Your task to perform on an android device: change the clock style Image 0: 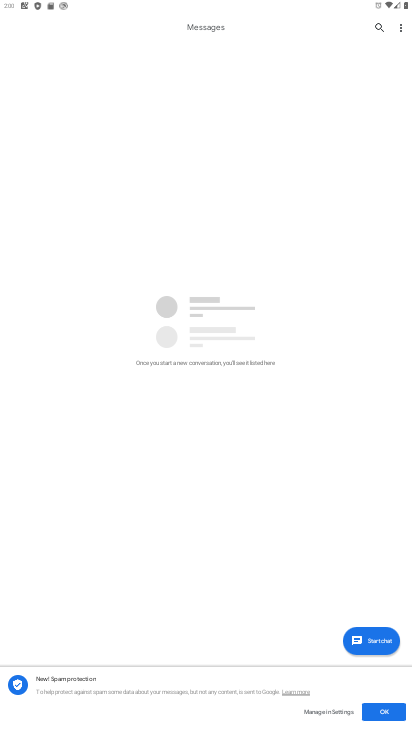
Step 0: press home button
Your task to perform on an android device: change the clock style Image 1: 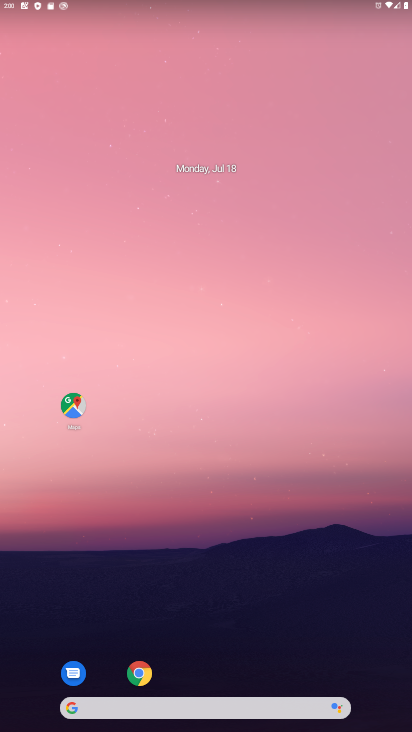
Step 1: drag from (203, 675) to (223, 197)
Your task to perform on an android device: change the clock style Image 2: 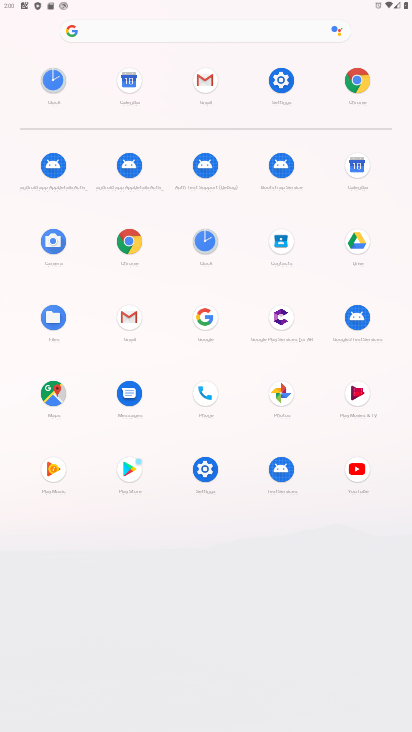
Step 2: click (205, 249)
Your task to perform on an android device: change the clock style Image 3: 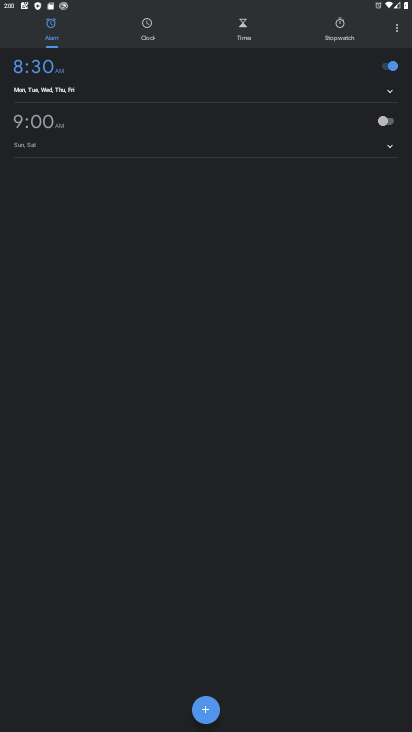
Step 3: click (398, 40)
Your task to perform on an android device: change the clock style Image 4: 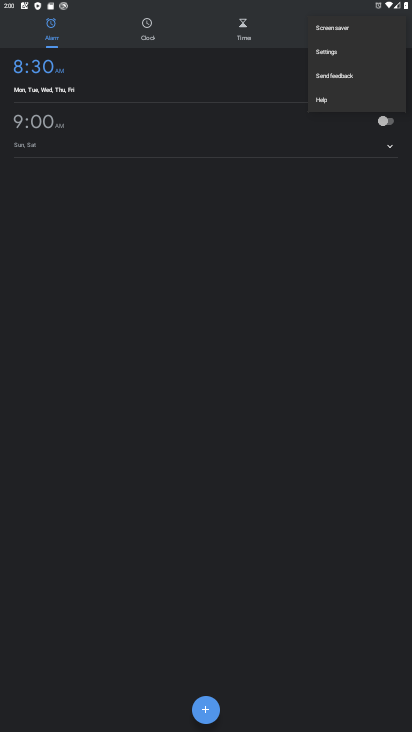
Step 4: click (333, 61)
Your task to perform on an android device: change the clock style Image 5: 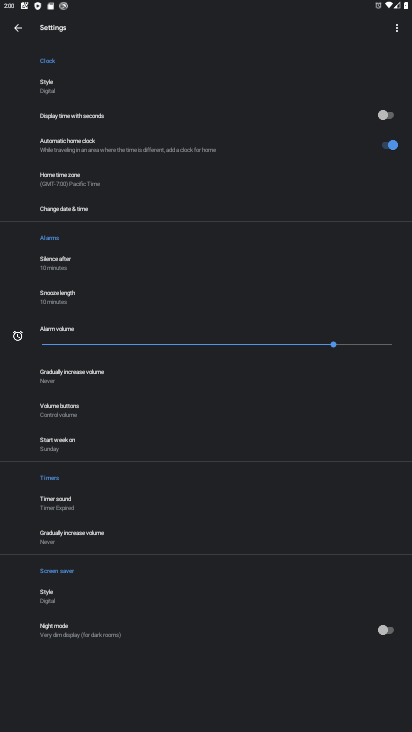
Step 5: click (76, 214)
Your task to perform on an android device: change the clock style Image 6: 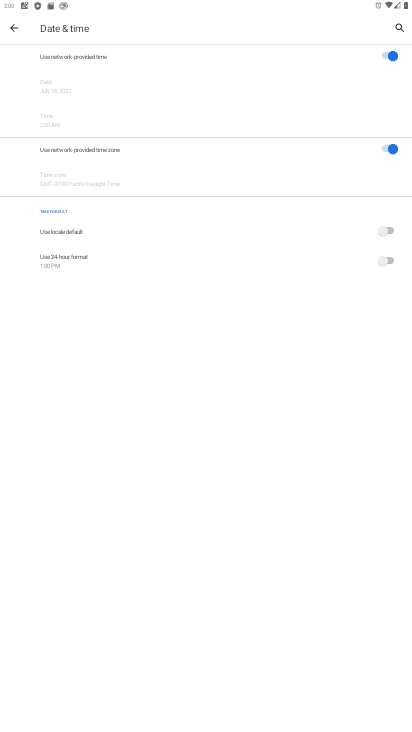
Step 6: task complete